Your task to perform on an android device: move an email to a new category in the gmail app Image 0: 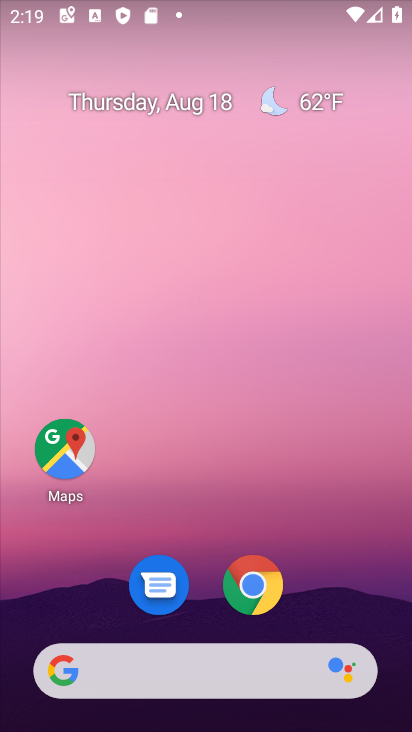
Step 0: drag from (328, 465) to (313, 1)
Your task to perform on an android device: move an email to a new category in the gmail app Image 1: 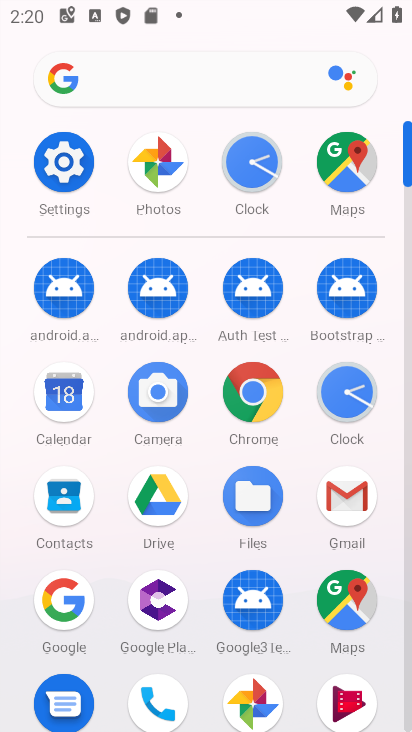
Step 1: click (349, 496)
Your task to perform on an android device: move an email to a new category in the gmail app Image 2: 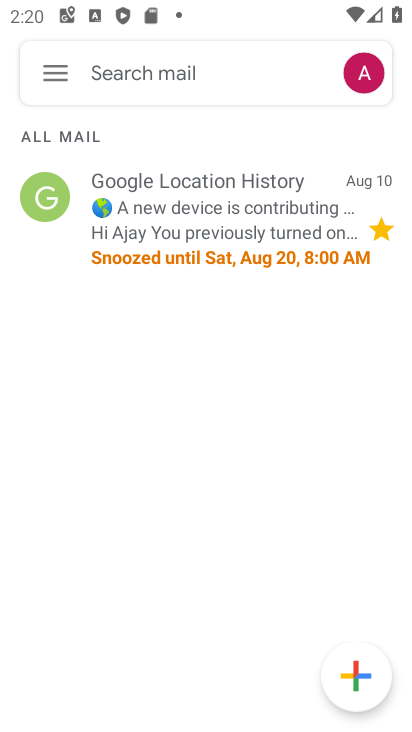
Step 2: click (255, 219)
Your task to perform on an android device: move an email to a new category in the gmail app Image 3: 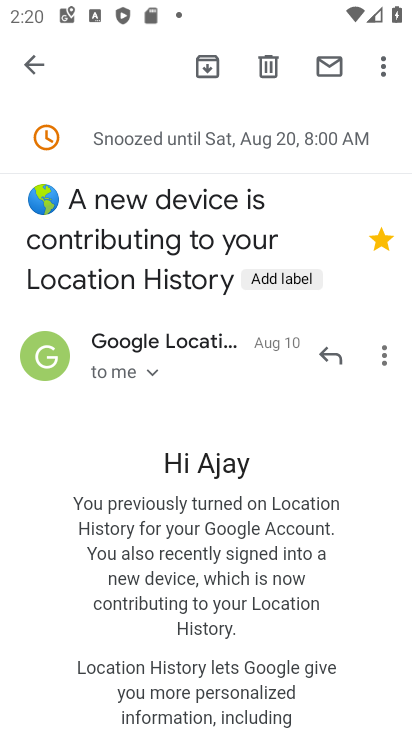
Step 3: click (376, 65)
Your task to perform on an android device: move an email to a new category in the gmail app Image 4: 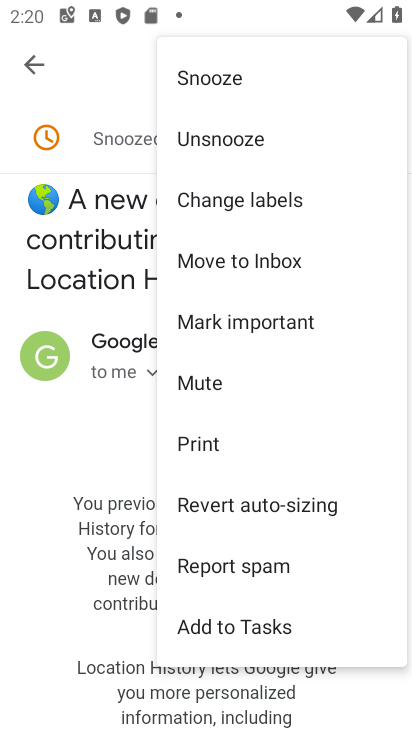
Step 4: click (259, 250)
Your task to perform on an android device: move an email to a new category in the gmail app Image 5: 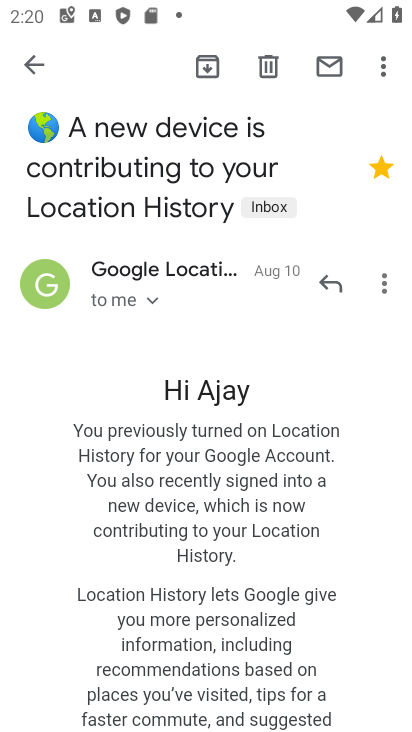
Step 5: task complete